Your task to perform on an android device: Play the last video I watched on Youtube Image 0: 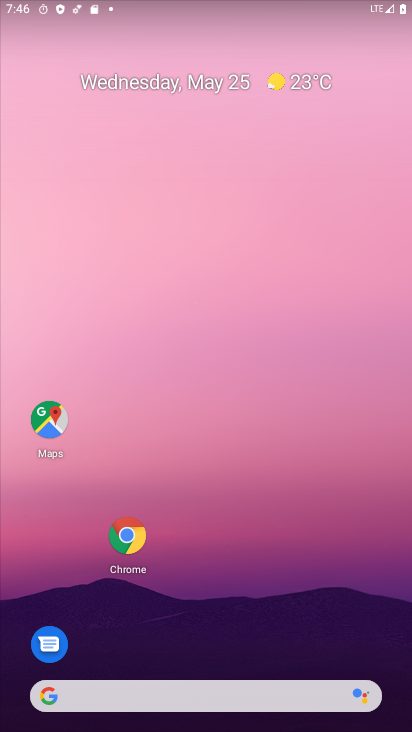
Step 0: drag from (190, 672) to (201, 229)
Your task to perform on an android device: Play the last video I watched on Youtube Image 1: 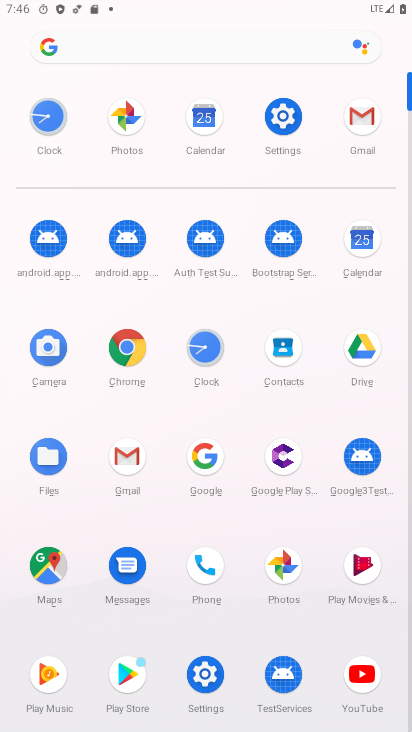
Step 1: click (358, 682)
Your task to perform on an android device: Play the last video I watched on Youtube Image 2: 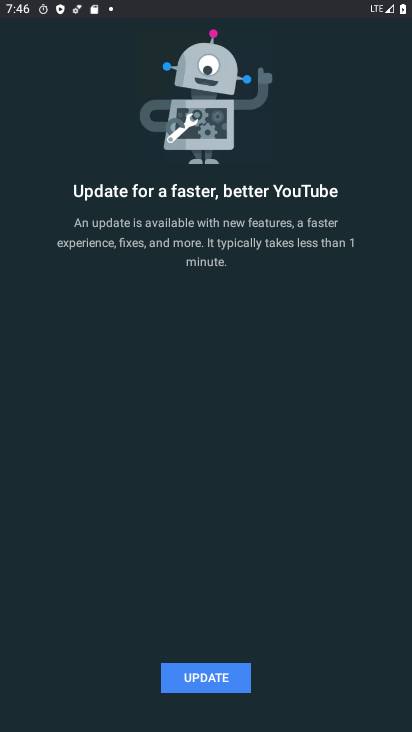
Step 2: click (192, 663)
Your task to perform on an android device: Play the last video I watched on Youtube Image 3: 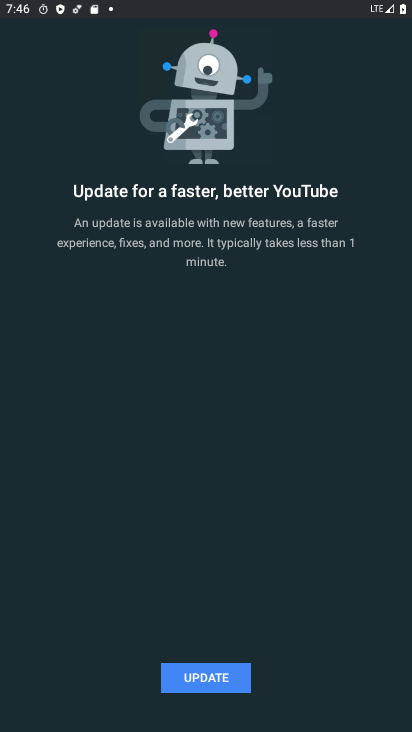
Step 3: click (194, 686)
Your task to perform on an android device: Play the last video I watched on Youtube Image 4: 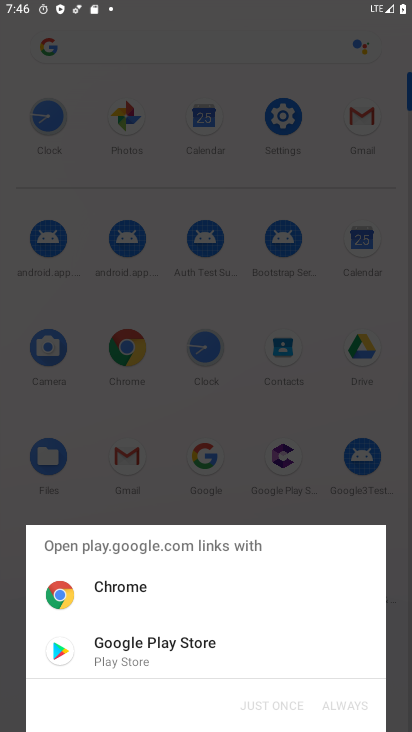
Step 4: click (282, 647)
Your task to perform on an android device: Play the last video I watched on Youtube Image 5: 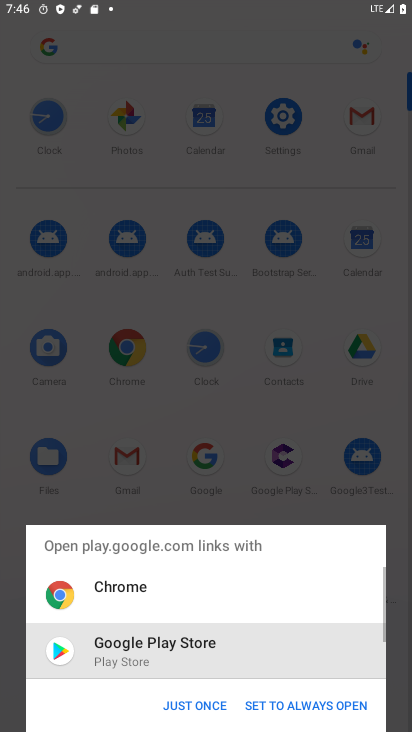
Step 5: click (181, 706)
Your task to perform on an android device: Play the last video I watched on Youtube Image 6: 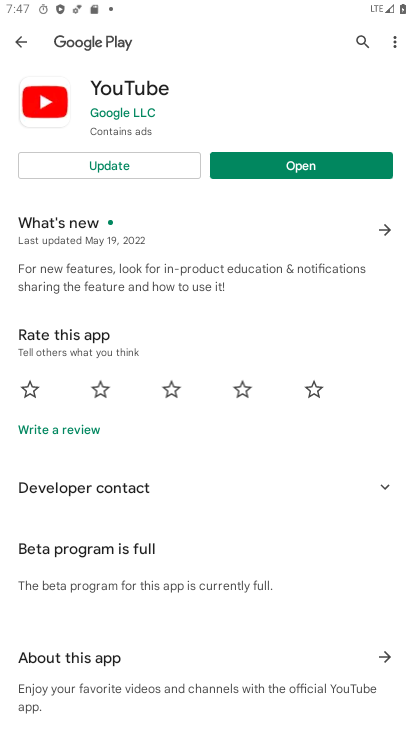
Step 6: click (120, 162)
Your task to perform on an android device: Play the last video I watched on Youtube Image 7: 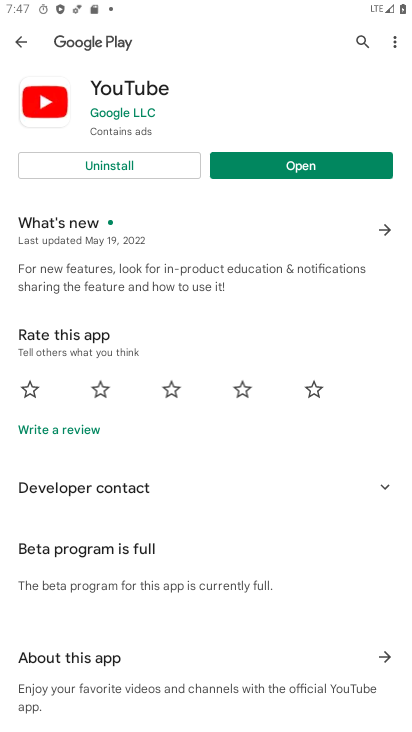
Step 7: click (274, 171)
Your task to perform on an android device: Play the last video I watched on Youtube Image 8: 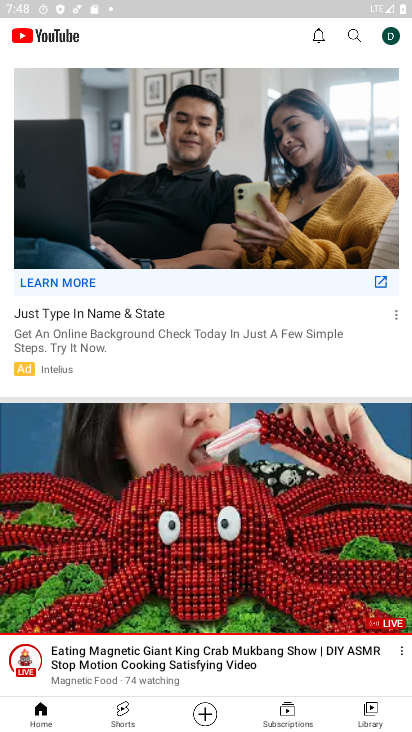
Step 8: click (376, 706)
Your task to perform on an android device: Play the last video I watched on Youtube Image 9: 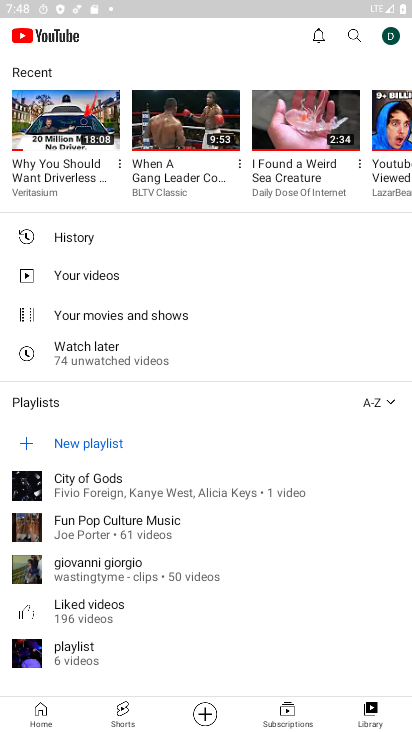
Step 9: click (71, 236)
Your task to perform on an android device: Play the last video I watched on Youtube Image 10: 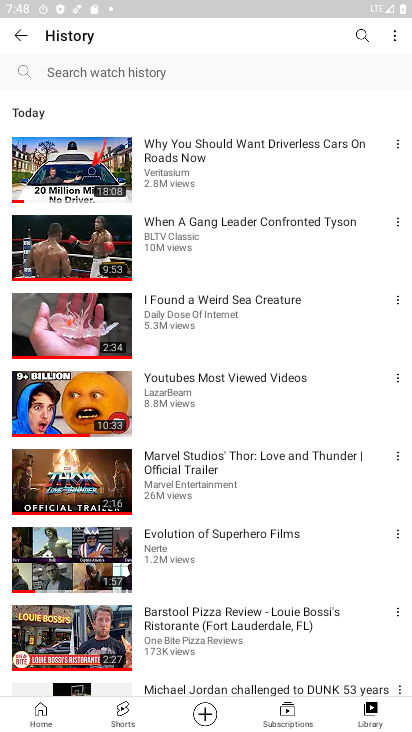
Step 10: click (93, 164)
Your task to perform on an android device: Play the last video I watched on Youtube Image 11: 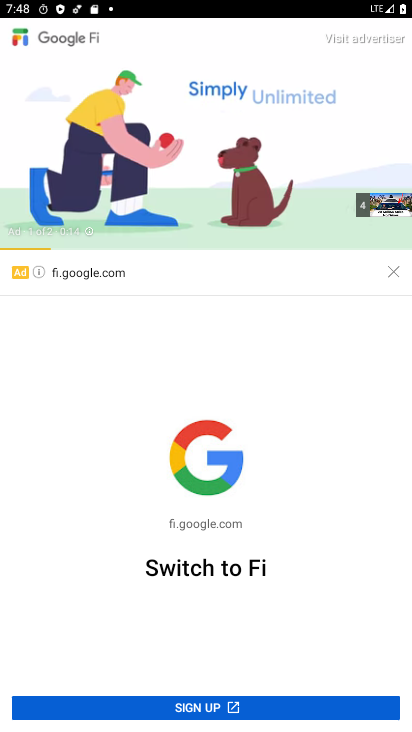
Step 11: task complete